Your task to perform on an android device: set the stopwatch Image 0: 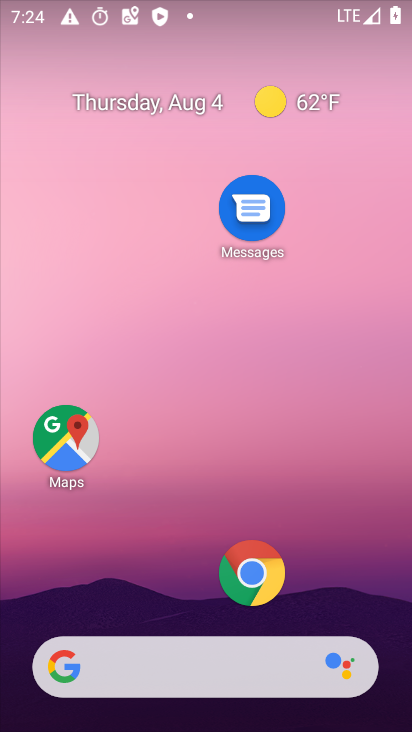
Step 0: press home button
Your task to perform on an android device: set the stopwatch Image 1: 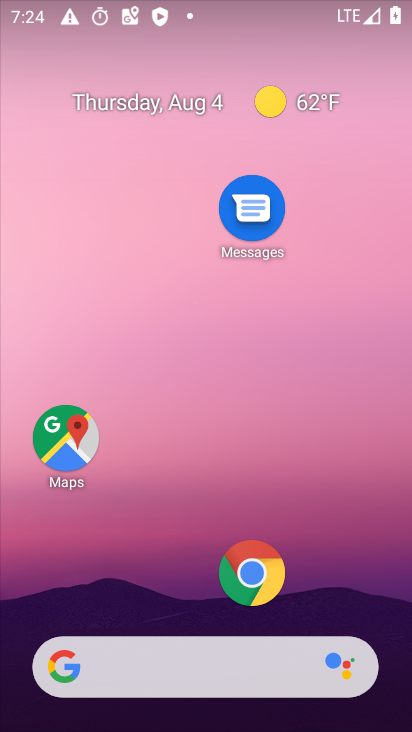
Step 1: drag from (182, 627) to (205, 163)
Your task to perform on an android device: set the stopwatch Image 2: 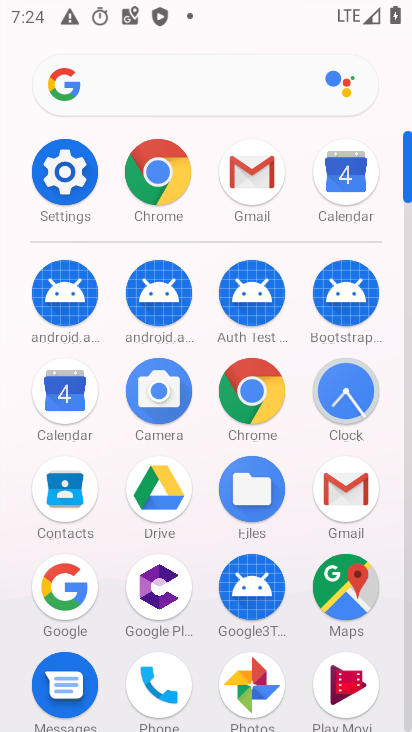
Step 2: click (355, 395)
Your task to perform on an android device: set the stopwatch Image 3: 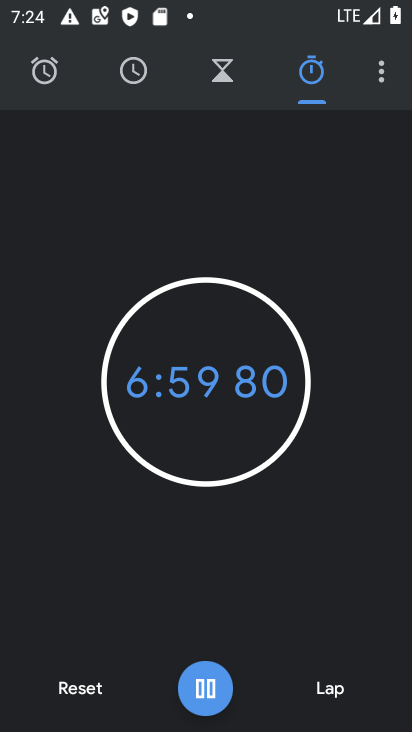
Step 3: click (321, 76)
Your task to perform on an android device: set the stopwatch Image 4: 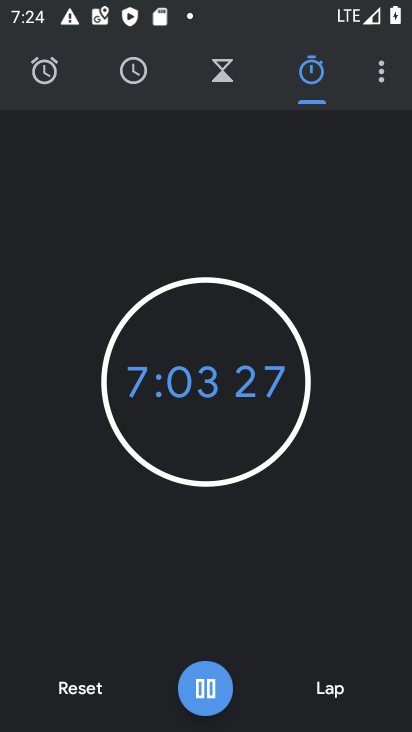
Step 4: task complete